Your task to perform on an android device: Go to battery settings Image 0: 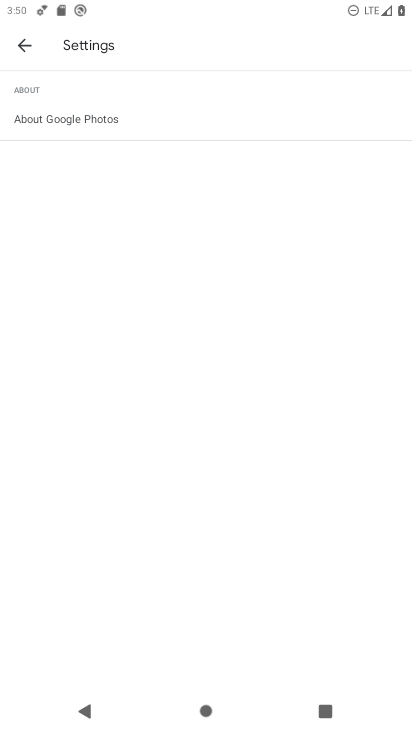
Step 0: press home button
Your task to perform on an android device: Go to battery settings Image 1: 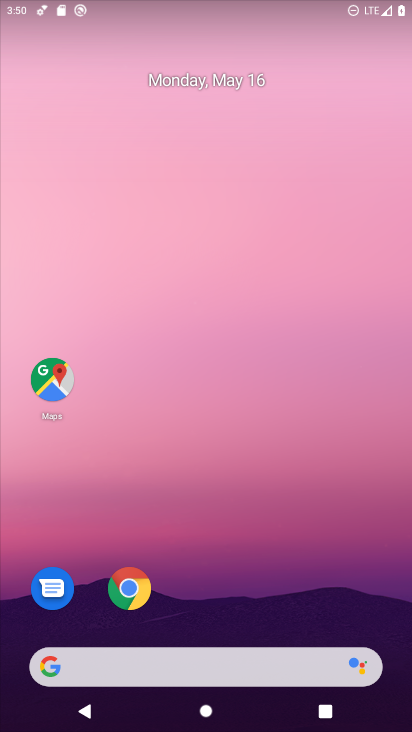
Step 1: drag from (273, 628) to (254, 7)
Your task to perform on an android device: Go to battery settings Image 2: 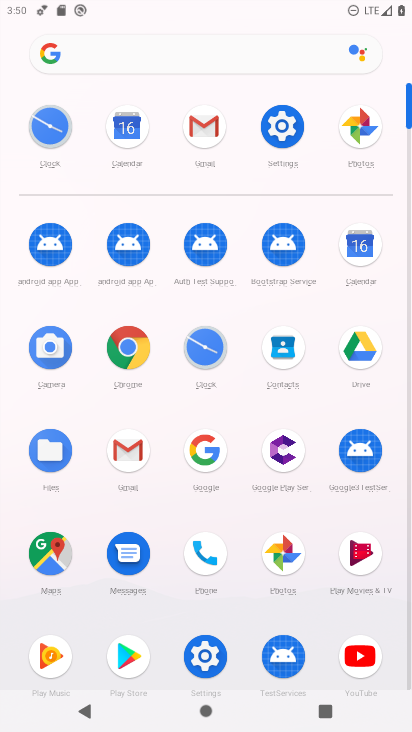
Step 2: click (282, 120)
Your task to perform on an android device: Go to battery settings Image 3: 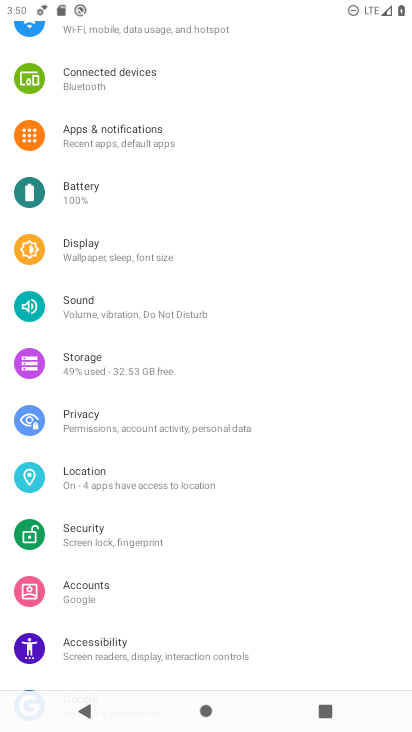
Step 3: click (79, 193)
Your task to perform on an android device: Go to battery settings Image 4: 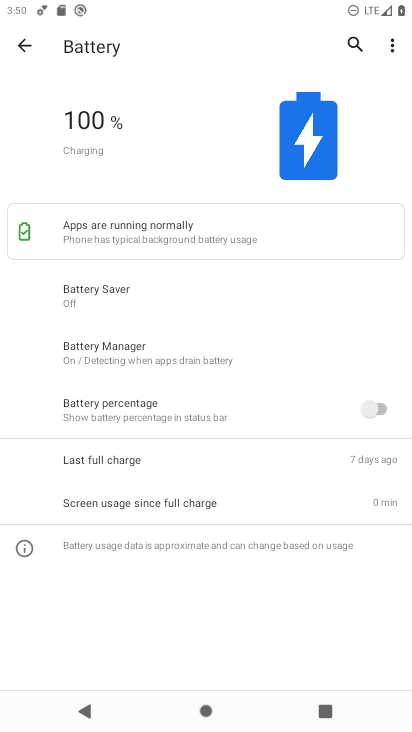
Step 4: task complete